Your task to perform on an android device: check google app version Image 0: 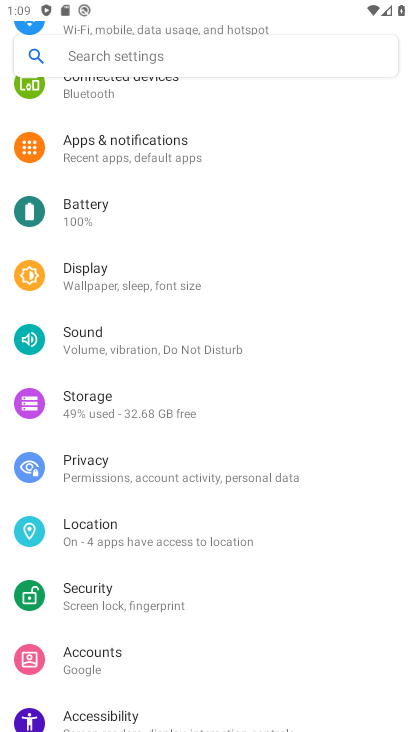
Step 0: click (164, 152)
Your task to perform on an android device: check google app version Image 1: 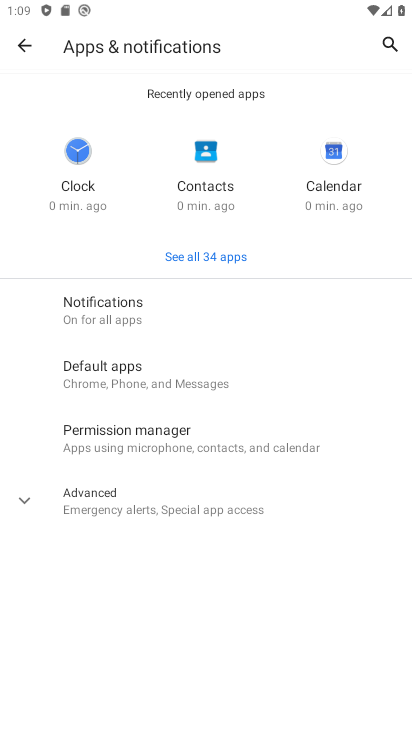
Step 1: click (213, 260)
Your task to perform on an android device: check google app version Image 2: 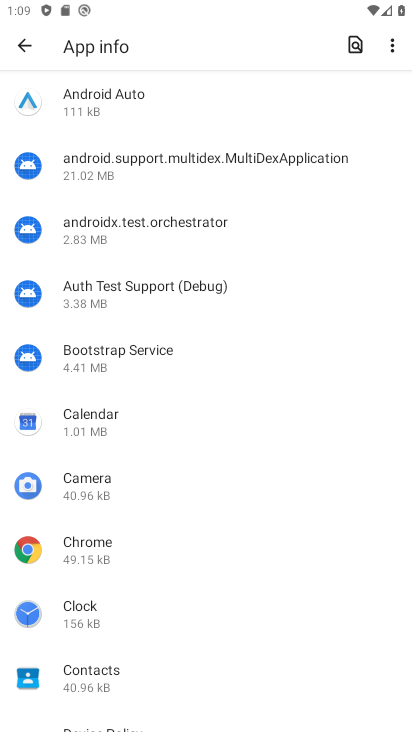
Step 2: drag from (139, 644) to (305, 111)
Your task to perform on an android device: check google app version Image 3: 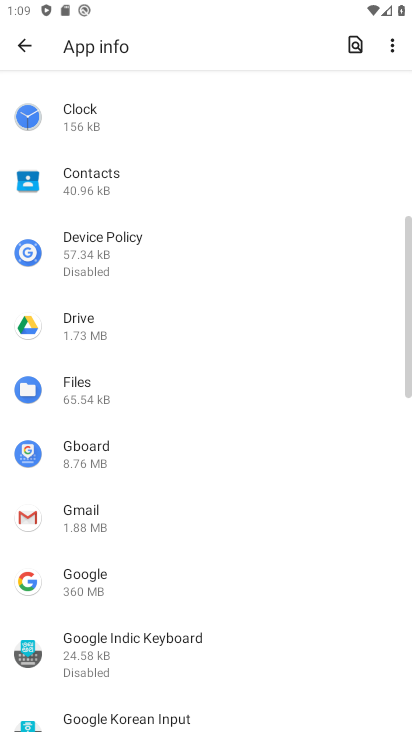
Step 3: click (146, 578)
Your task to perform on an android device: check google app version Image 4: 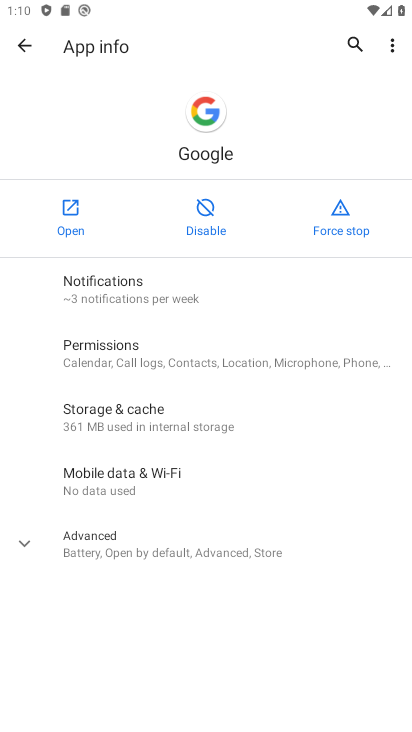
Step 4: click (182, 549)
Your task to perform on an android device: check google app version Image 5: 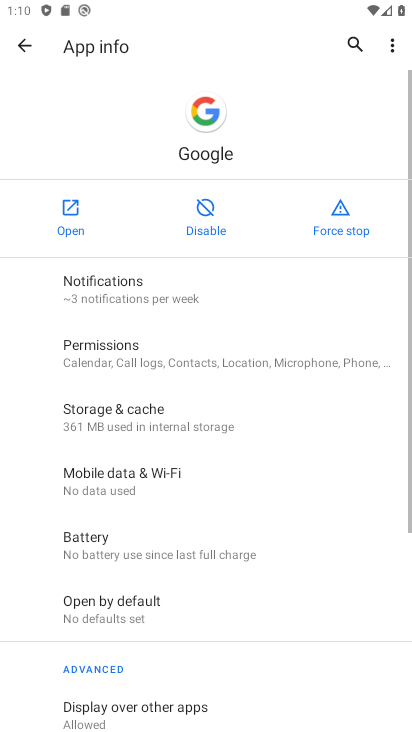
Step 5: task complete